Your task to perform on an android device: add a label to a message in the gmail app Image 0: 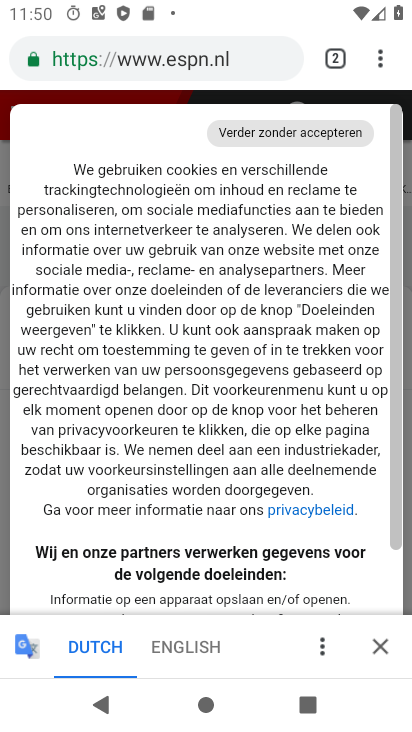
Step 0: press home button
Your task to perform on an android device: add a label to a message in the gmail app Image 1: 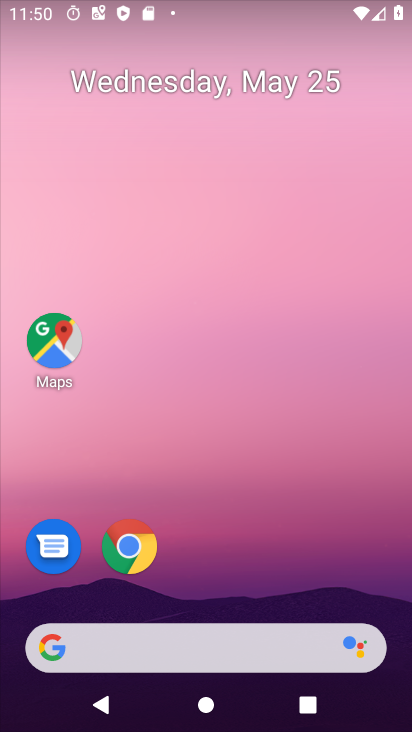
Step 1: drag from (242, 557) to (237, 78)
Your task to perform on an android device: add a label to a message in the gmail app Image 2: 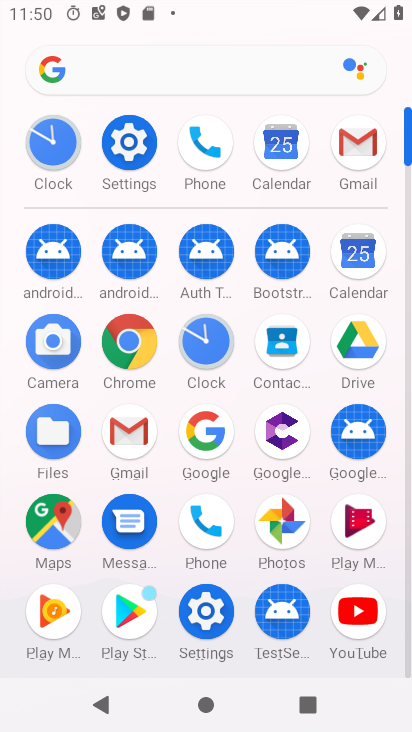
Step 2: click (121, 429)
Your task to perform on an android device: add a label to a message in the gmail app Image 3: 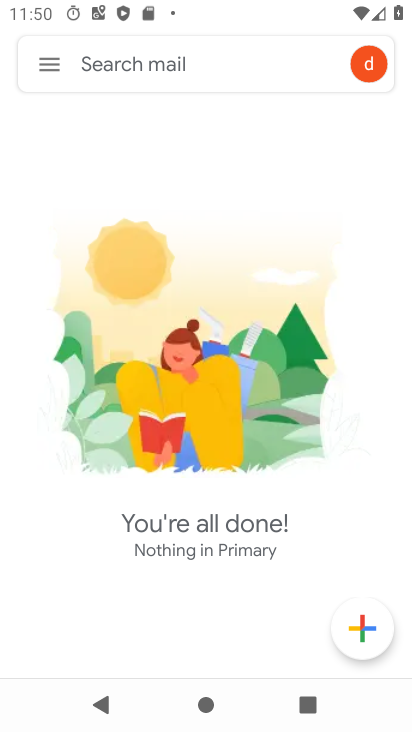
Step 3: click (46, 67)
Your task to perform on an android device: add a label to a message in the gmail app Image 4: 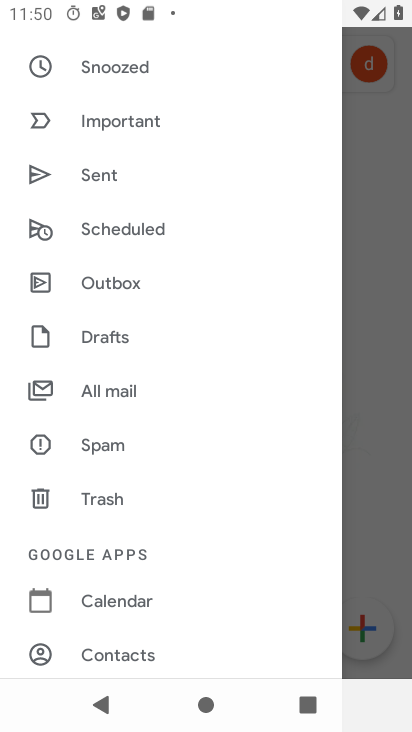
Step 4: click (103, 399)
Your task to perform on an android device: add a label to a message in the gmail app Image 5: 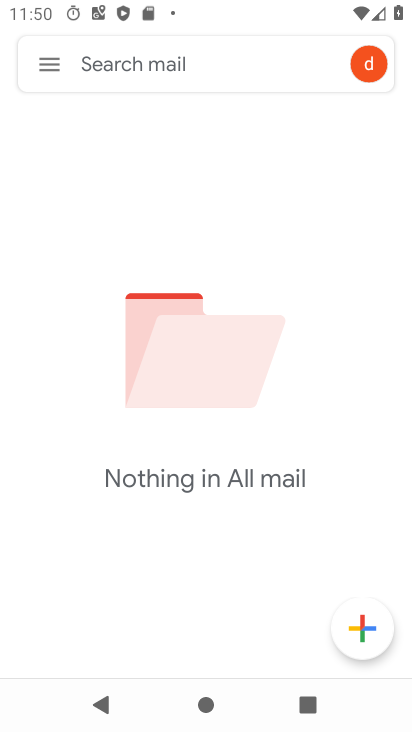
Step 5: task complete